Your task to perform on an android device: Open Android settings Image 0: 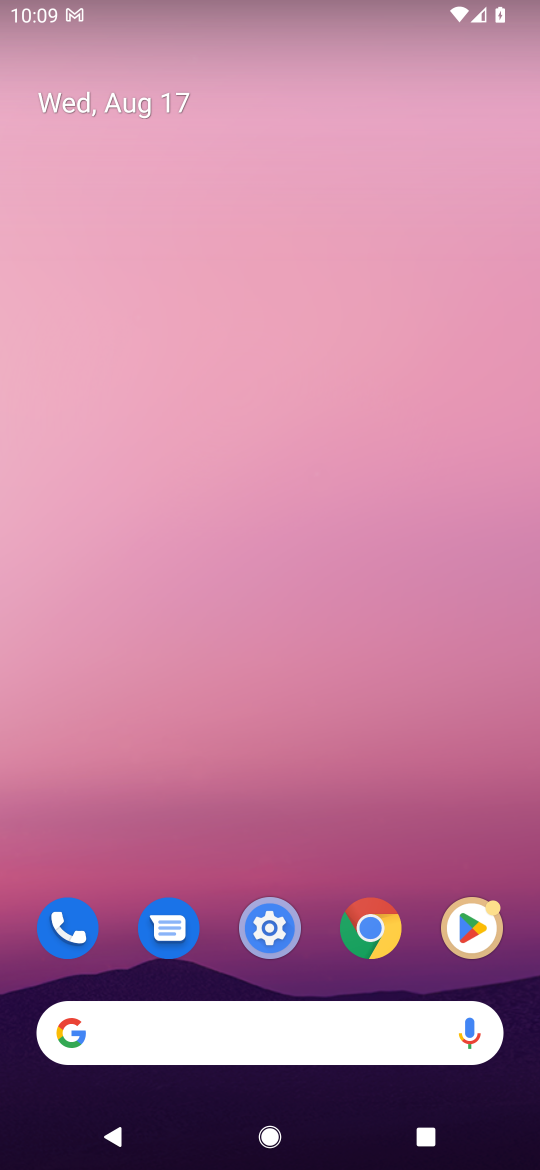
Step 0: click (286, 920)
Your task to perform on an android device: Open Android settings Image 1: 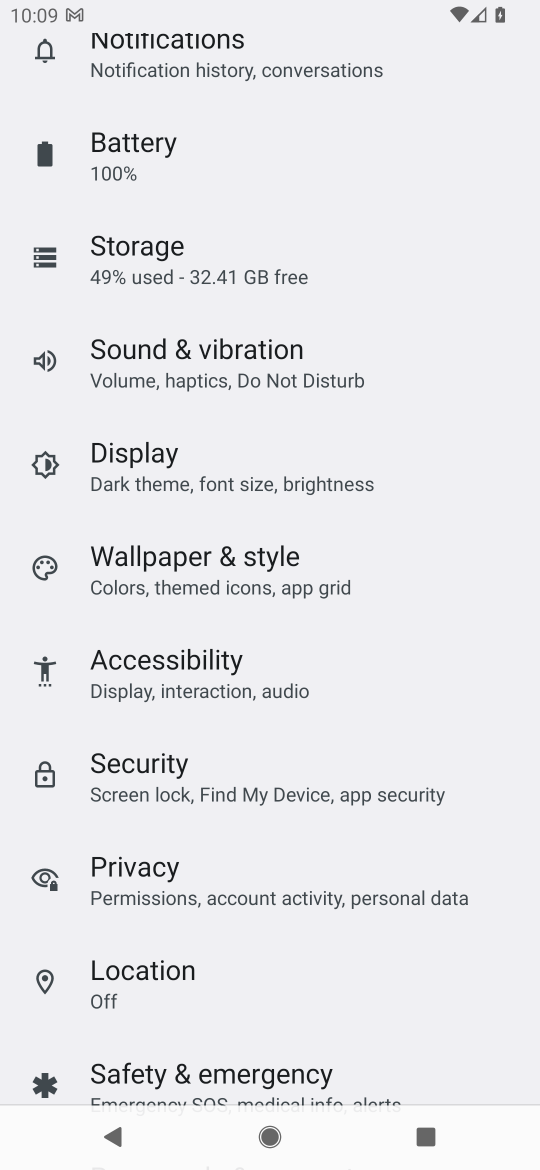
Step 1: task complete